Your task to perform on an android device: turn on the 12-hour format for clock Image 0: 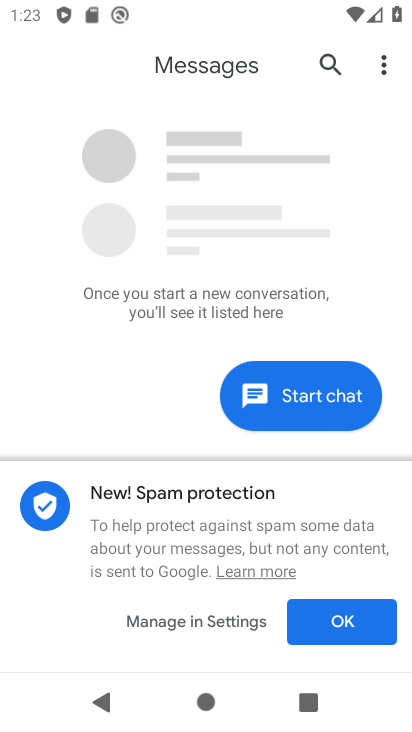
Step 0: press home button
Your task to perform on an android device: turn on the 12-hour format for clock Image 1: 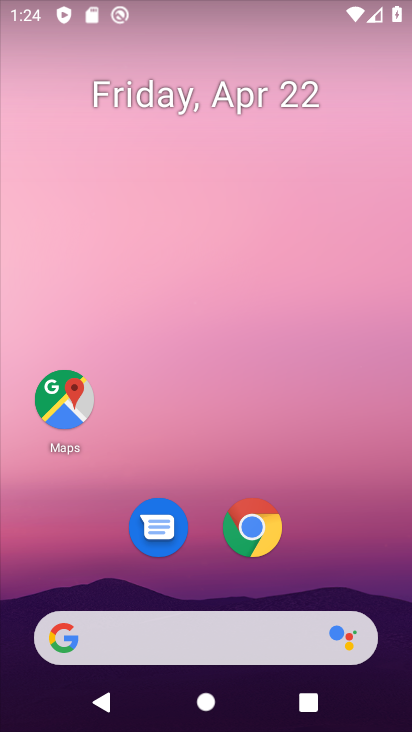
Step 1: drag from (352, 541) to (349, 114)
Your task to perform on an android device: turn on the 12-hour format for clock Image 2: 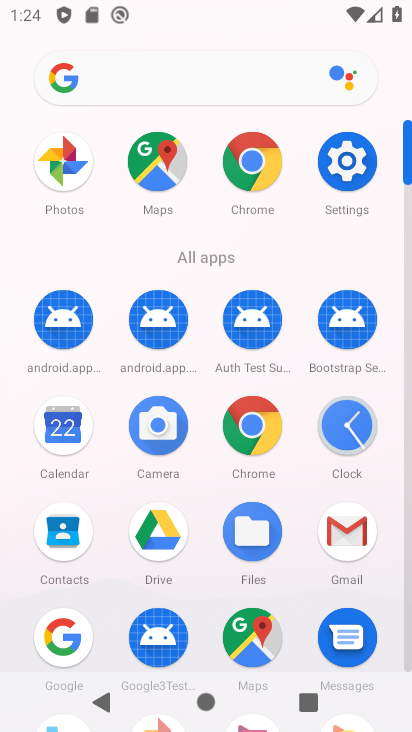
Step 2: click (327, 433)
Your task to perform on an android device: turn on the 12-hour format for clock Image 3: 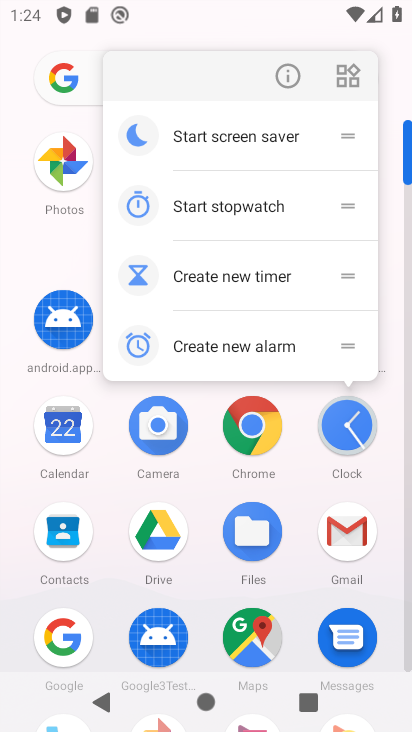
Step 3: click (343, 443)
Your task to perform on an android device: turn on the 12-hour format for clock Image 4: 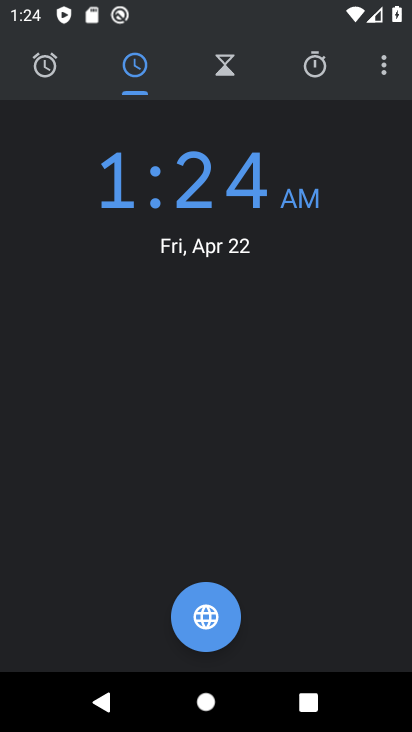
Step 4: click (387, 73)
Your task to perform on an android device: turn on the 12-hour format for clock Image 5: 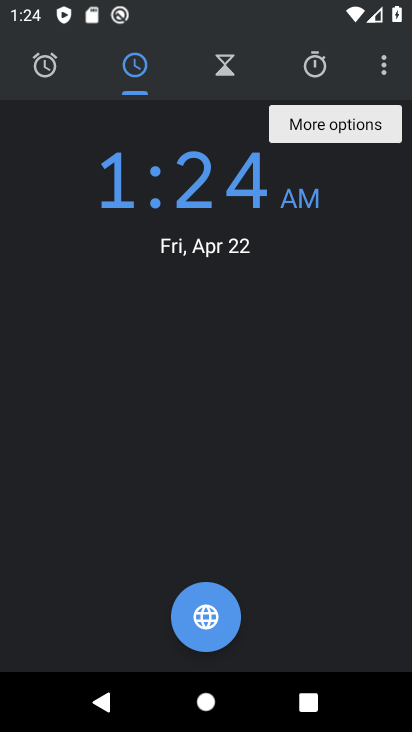
Step 5: click (387, 74)
Your task to perform on an android device: turn on the 12-hour format for clock Image 6: 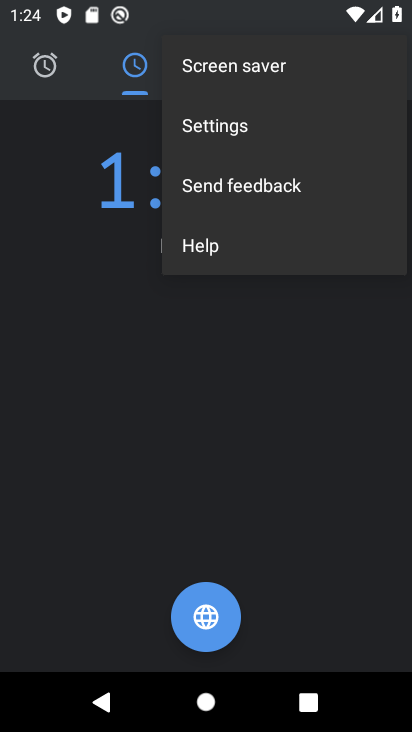
Step 6: click (239, 123)
Your task to perform on an android device: turn on the 12-hour format for clock Image 7: 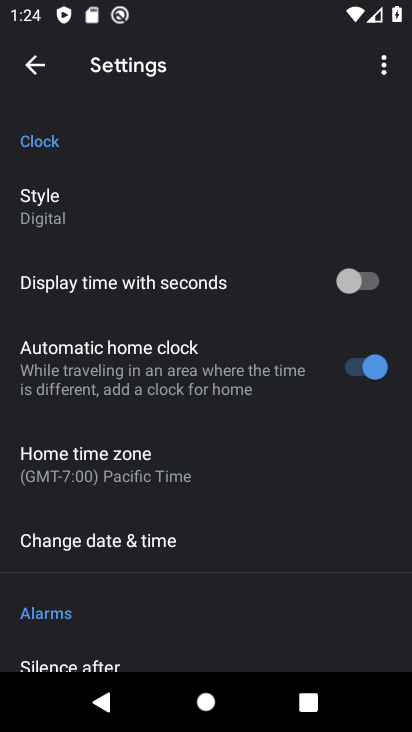
Step 7: drag from (127, 557) to (151, 153)
Your task to perform on an android device: turn on the 12-hour format for clock Image 8: 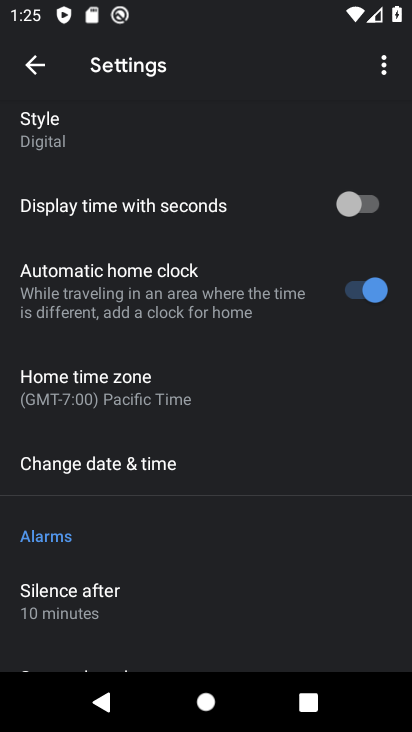
Step 8: drag from (190, 576) to (267, 277)
Your task to perform on an android device: turn on the 12-hour format for clock Image 9: 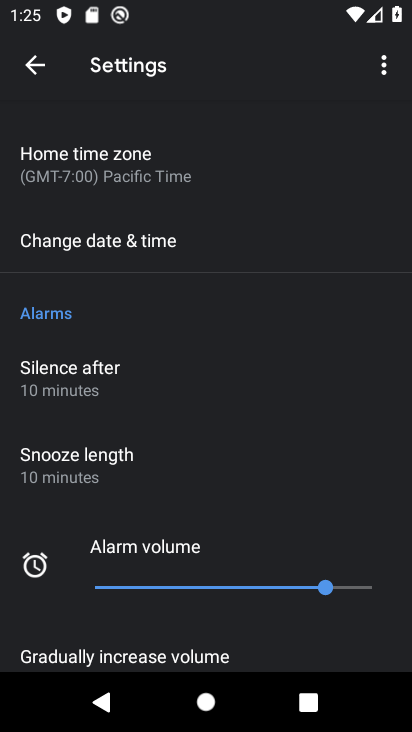
Step 9: click (141, 246)
Your task to perform on an android device: turn on the 12-hour format for clock Image 10: 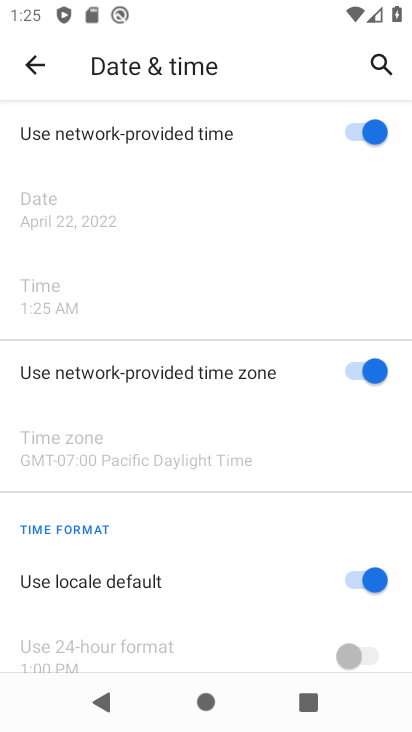
Step 10: drag from (178, 547) to (239, 226)
Your task to perform on an android device: turn on the 12-hour format for clock Image 11: 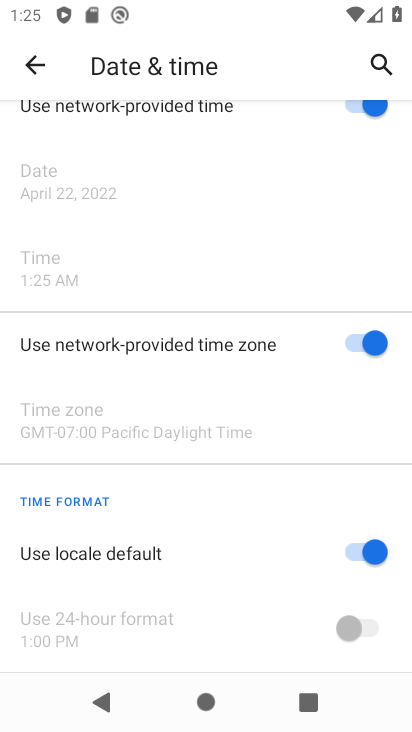
Step 11: click (360, 547)
Your task to perform on an android device: turn on the 12-hour format for clock Image 12: 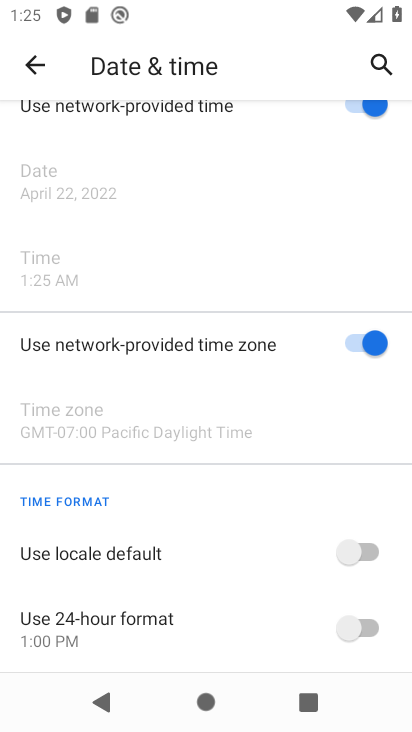
Step 12: task complete